Your task to perform on an android device: Do I have any events this weekend? Image 0: 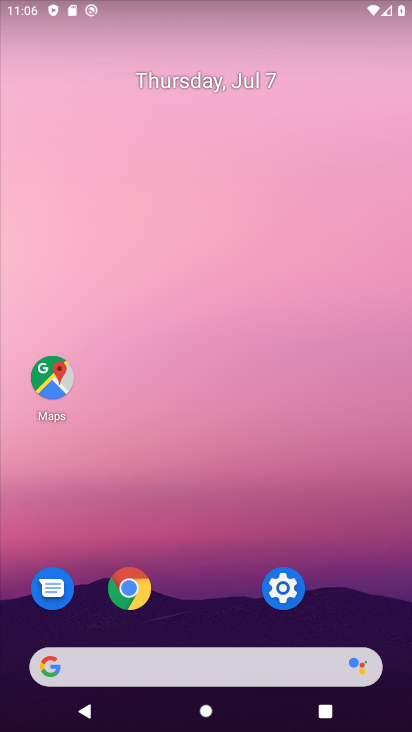
Step 0: drag from (230, 681) to (135, 142)
Your task to perform on an android device: Do I have any events this weekend? Image 1: 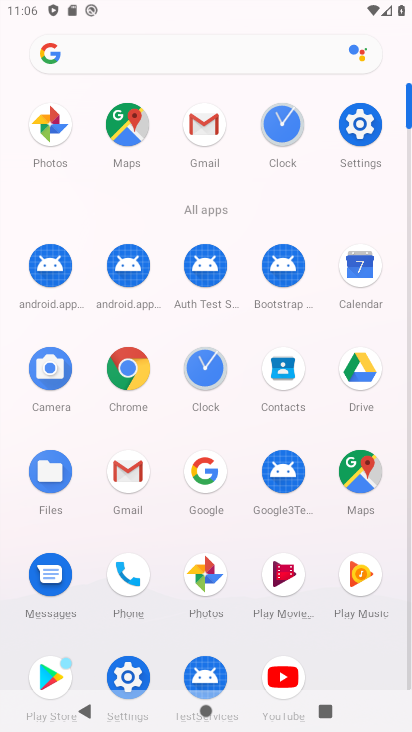
Step 1: click (351, 293)
Your task to perform on an android device: Do I have any events this weekend? Image 2: 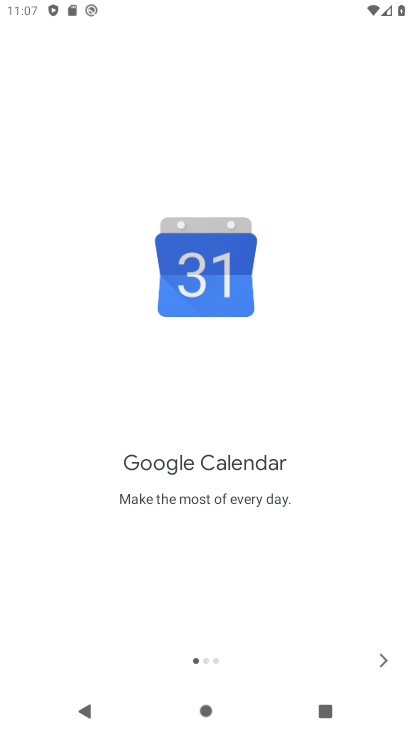
Step 2: click (382, 662)
Your task to perform on an android device: Do I have any events this weekend? Image 3: 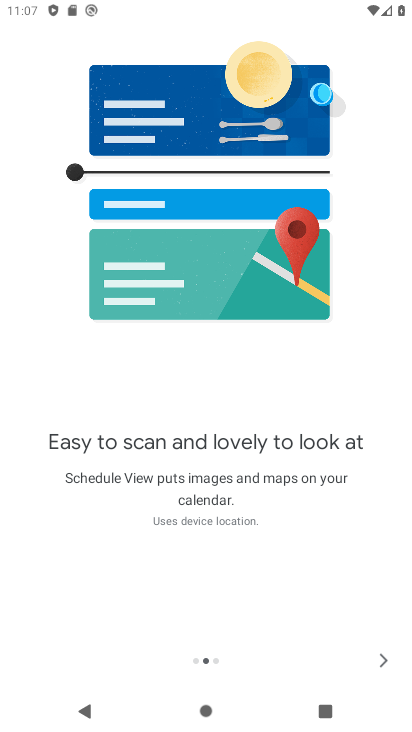
Step 3: click (381, 648)
Your task to perform on an android device: Do I have any events this weekend? Image 4: 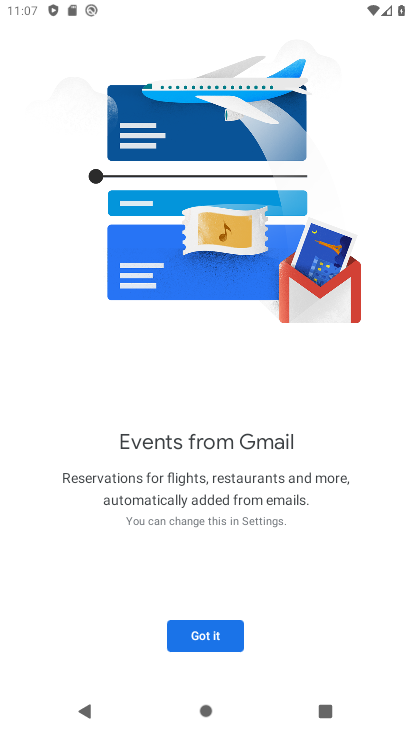
Step 4: click (215, 637)
Your task to perform on an android device: Do I have any events this weekend? Image 5: 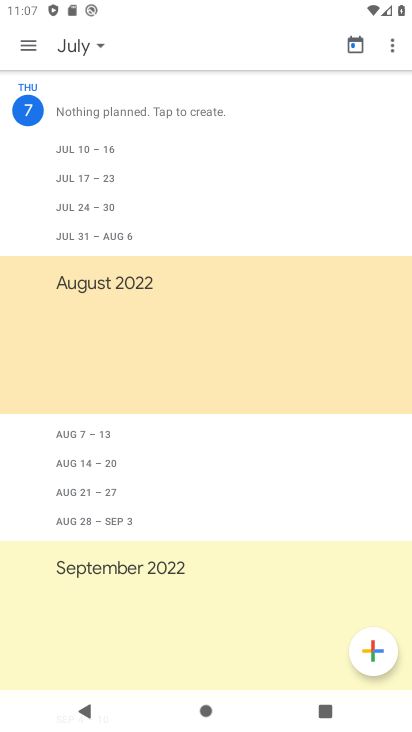
Step 5: click (30, 38)
Your task to perform on an android device: Do I have any events this weekend? Image 6: 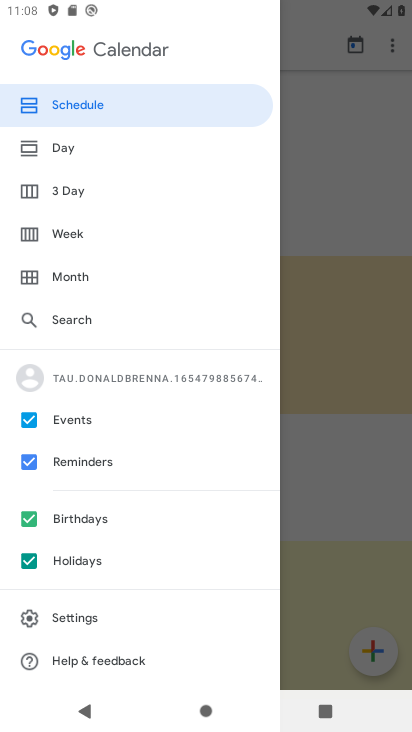
Step 6: click (74, 238)
Your task to perform on an android device: Do I have any events this weekend? Image 7: 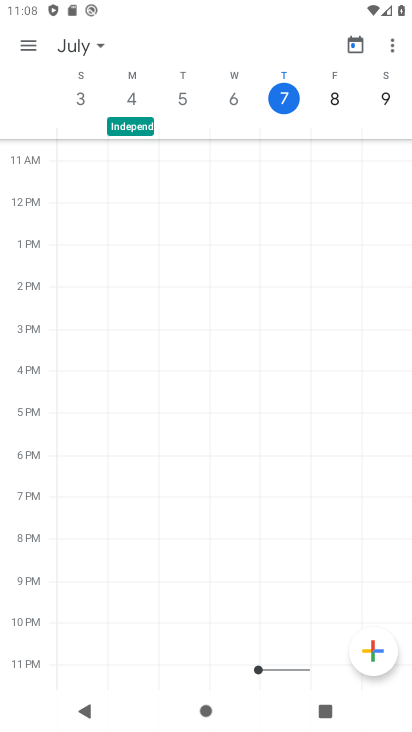
Step 7: task complete